Your task to perform on an android device: turn off data saver in the chrome app Image 0: 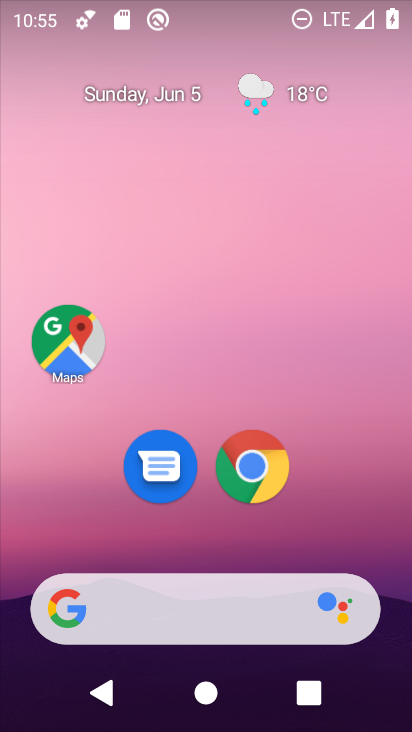
Step 0: drag from (391, 500) to (222, 25)
Your task to perform on an android device: turn off data saver in the chrome app Image 1: 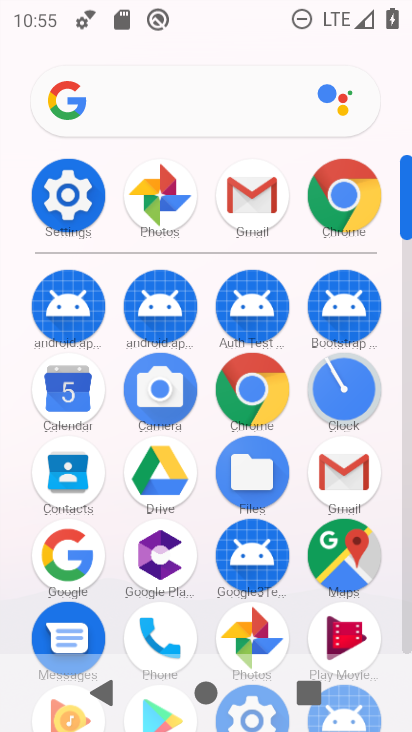
Step 1: drag from (16, 542) to (36, 250)
Your task to perform on an android device: turn off data saver in the chrome app Image 2: 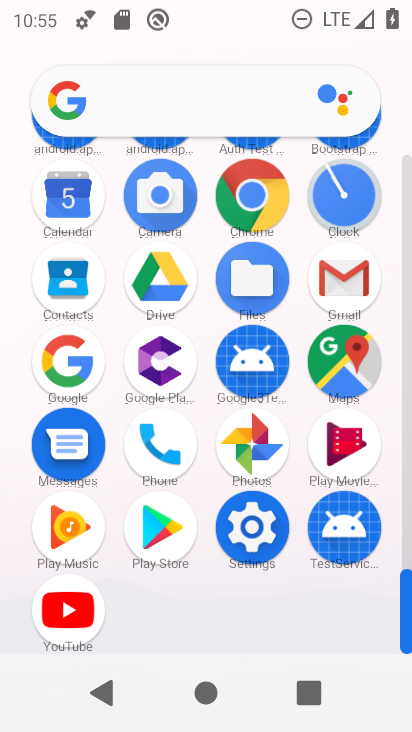
Step 2: click (244, 193)
Your task to perform on an android device: turn off data saver in the chrome app Image 3: 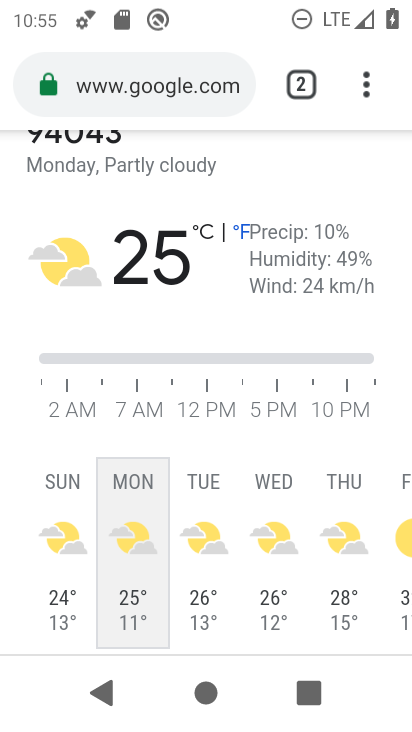
Step 3: drag from (362, 69) to (115, 504)
Your task to perform on an android device: turn off data saver in the chrome app Image 4: 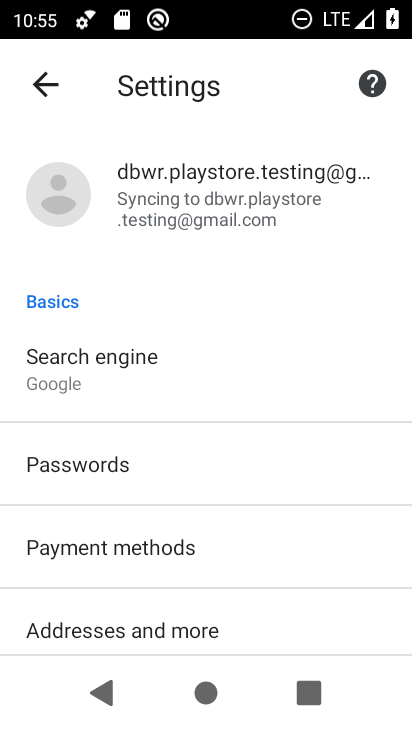
Step 4: drag from (275, 555) to (315, 226)
Your task to perform on an android device: turn off data saver in the chrome app Image 5: 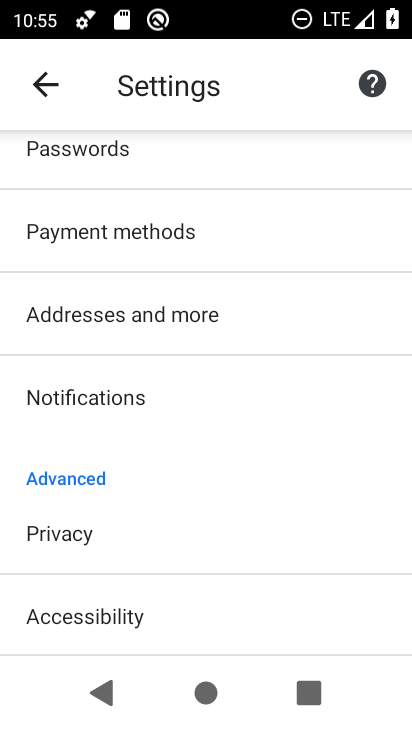
Step 5: drag from (282, 502) to (305, 180)
Your task to perform on an android device: turn off data saver in the chrome app Image 6: 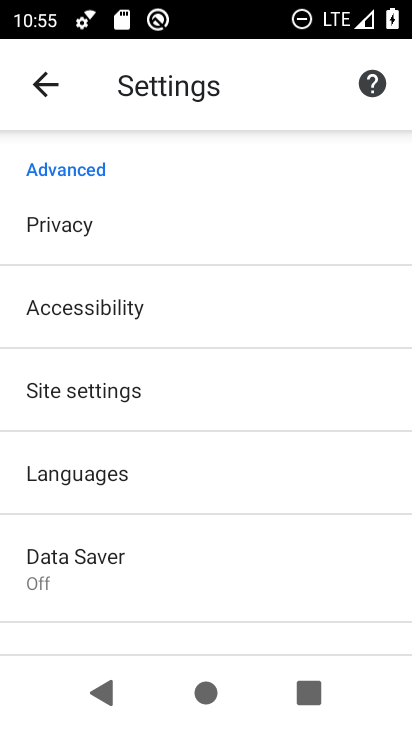
Step 6: click (166, 571)
Your task to perform on an android device: turn off data saver in the chrome app Image 7: 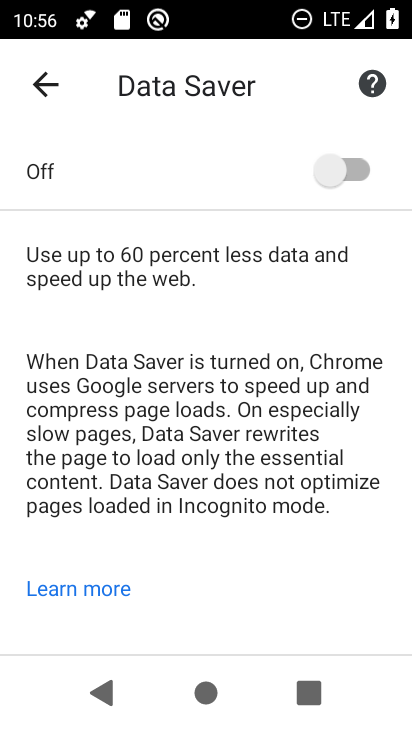
Step 7: task complete